Your task to perform on an android device: Go to notification settings Image 0: 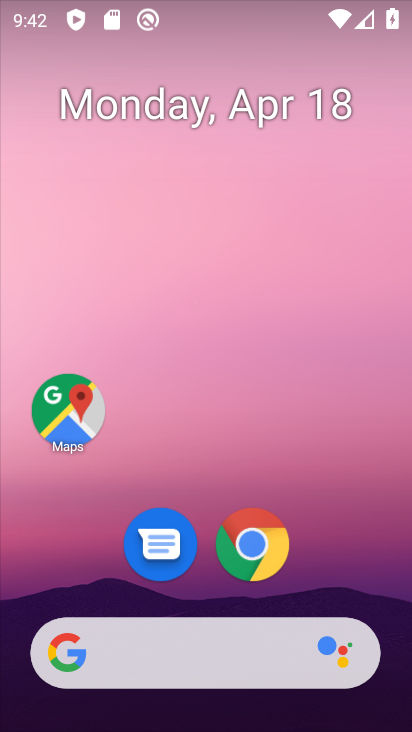
Step 0: drag from (340, 572) to (334, 91)
Your task to perform on an android device: Go to notification settings Image 1: 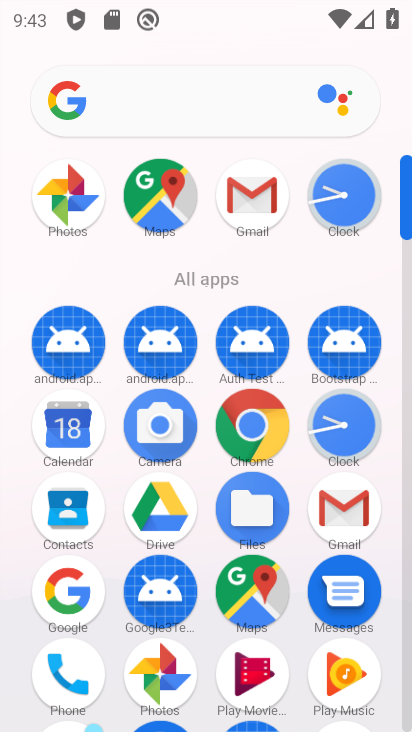
Step 1: drag from (294, 271) to (316, 29)
Your task to perform on an android device: Go to notification settings Image 2: 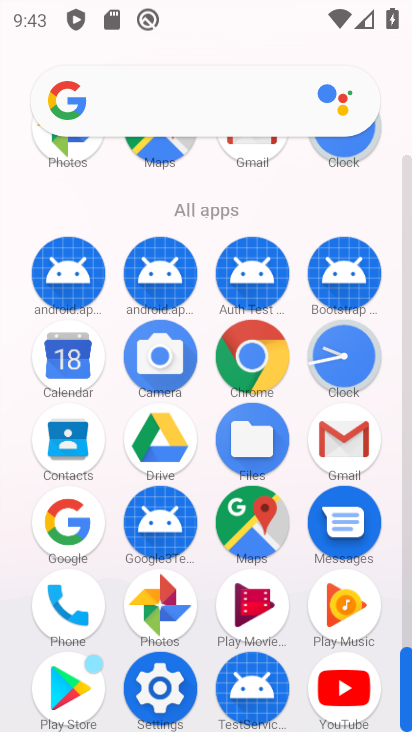
Step 2: click (155, 675)
Your task to perform on an android device: Go to notification settings Image 3: 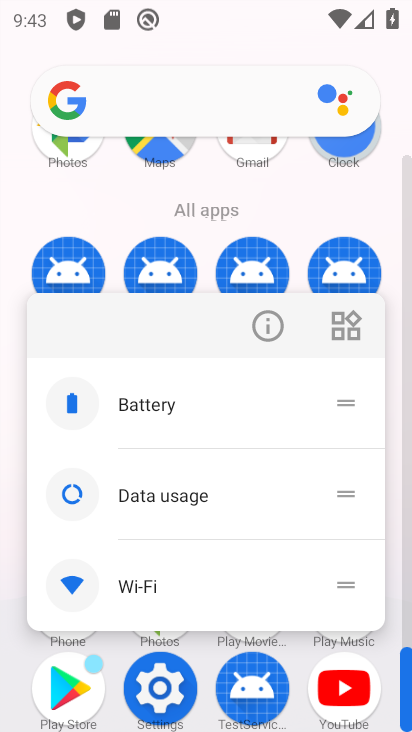
Step 3: click (157, 683)
Your task to perform on an android device: Go to notification settings Image 4: 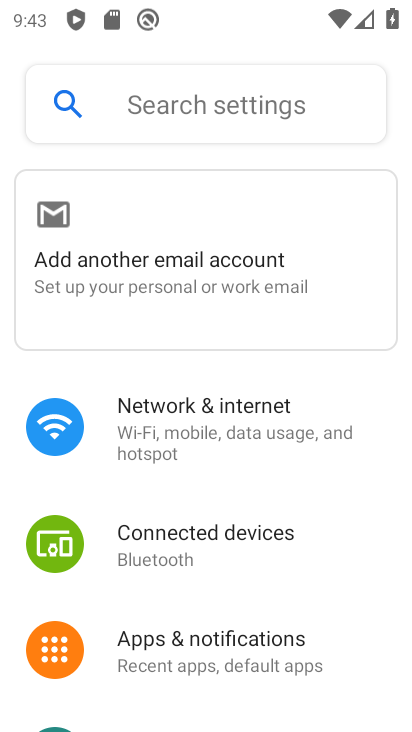
Step 4: drag from (337, 580) to (378, 159)
Your task to perform on an android device: Go to notification settings Image 5: 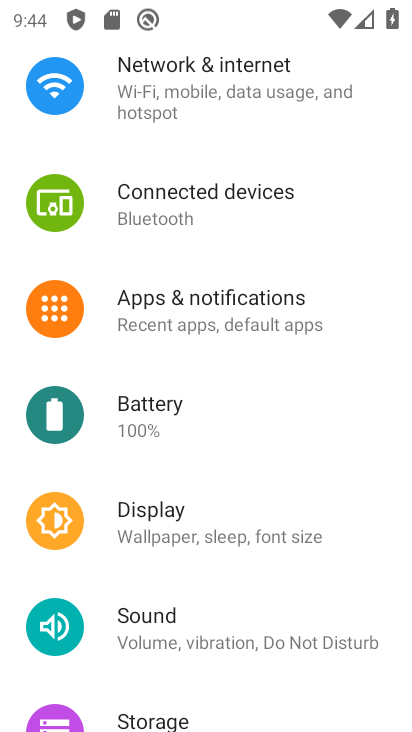
Step 5: click (261, 297)
Your task to perform on an android device: Go to notification settings Image 6: 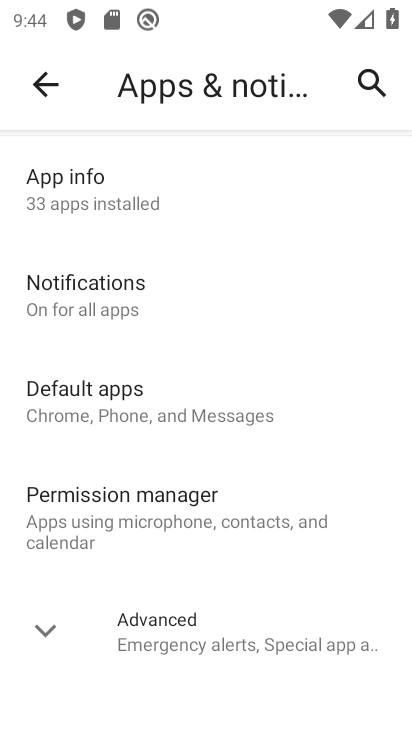
Step 6: click (101, 303)
Your task to perform on an android device: Go to notification settings Image 7: 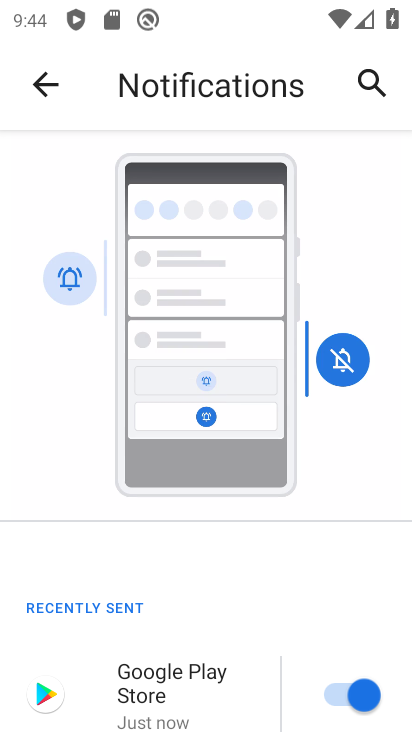
Step 7: task complete